Your task to perform on an android device: turn on javascript in the chrome app Image 0: 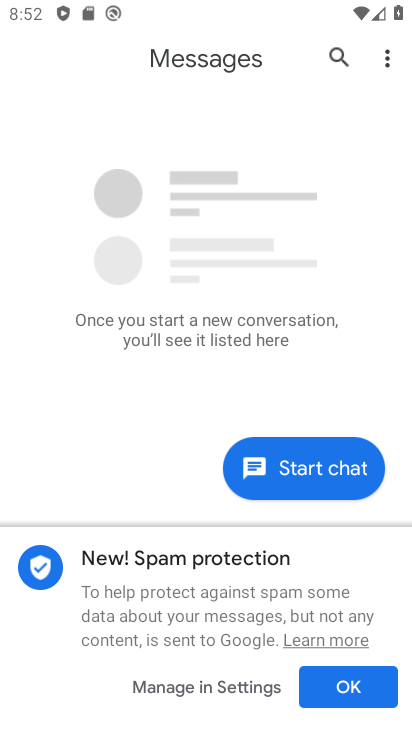
Step 0: press home button
Your task to perform on an android device: turn on javascript in the chrome app Image 1: 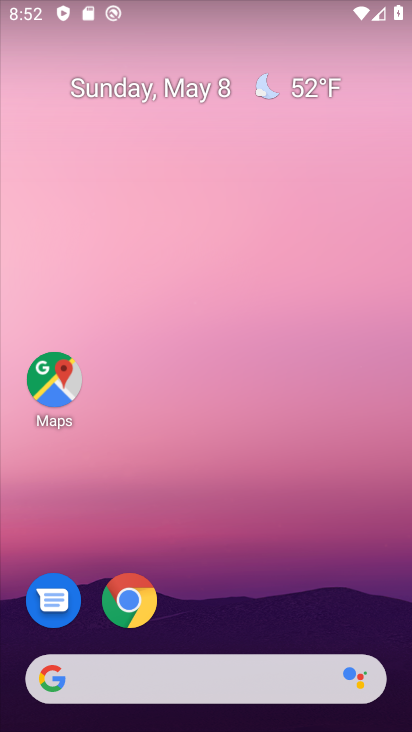
Step 1: click (139, 614)
Your task to perform on an android device: turn on javascript in the chrome app Image 2: 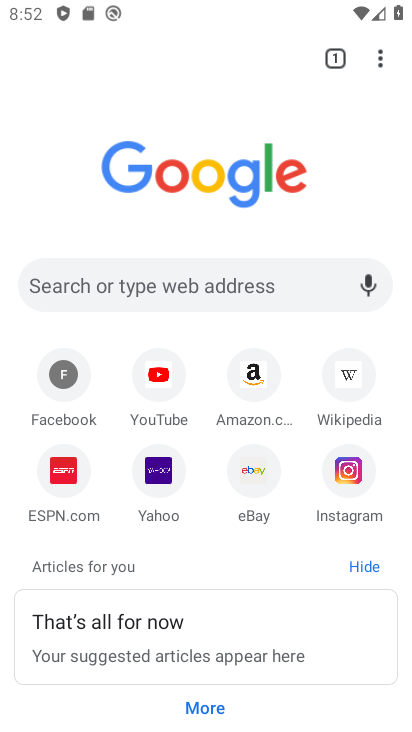
Step 2: drag from (376, 57) to (210, 498)
Your task to perform on an android device: turn on javascript in the chrome app Image 3: 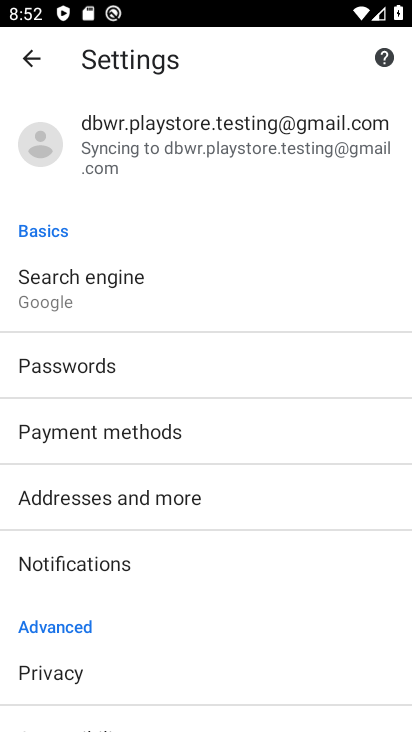
Step 3: drag from (178, 650) to (179, 221)
Your task to perform on an android device: turn on javascript in the chrome app Image 4: 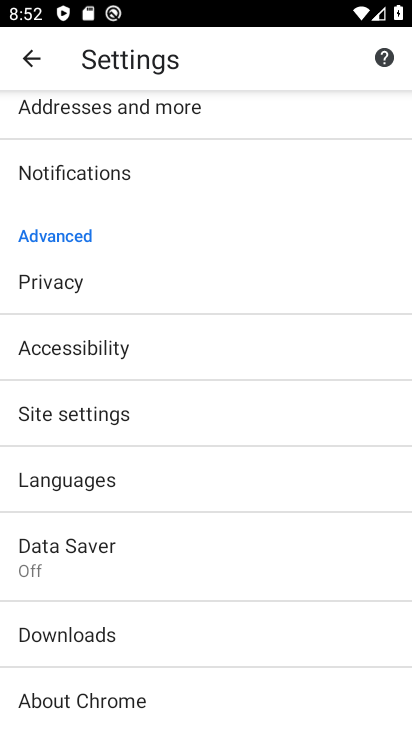
Step 4: drag from (136, 669) to (149, 271)
Your task to perform on an android device: turn on javascript in the chrome app Image 5: 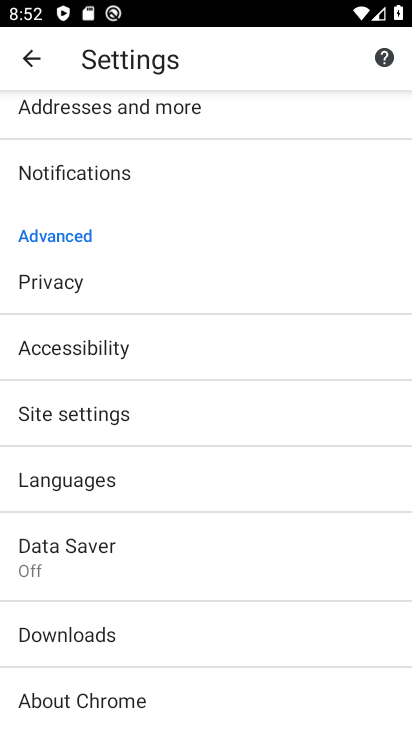
Step 5: click (111, 415)
Your task to perform on an android device: turn on javascript in the chrome app Image 6: 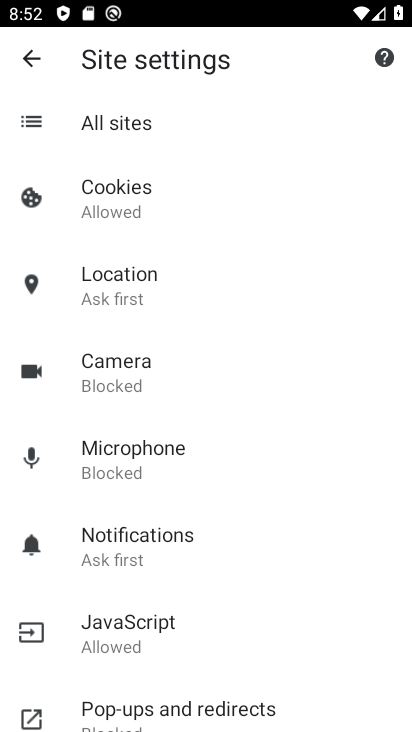
Step 6: click (198, 635)
Your task to perform on an android device: turn on javascript in the chrome app Image 7: 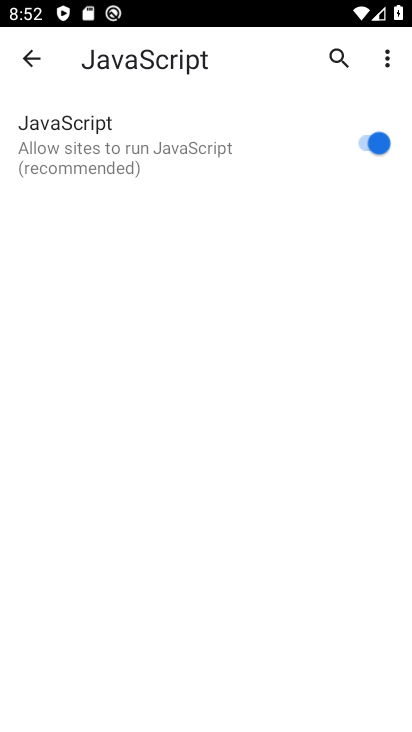
Step 7: task complete